Your task to perform on an android device: Open network settings Image 0: 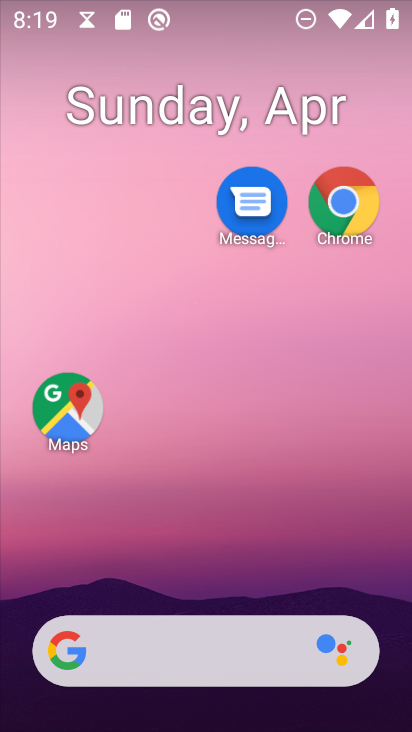
Step 0: drag from (164, 659) to (258, 137)
Your task to perform on an android device: Open network settings Image 1: 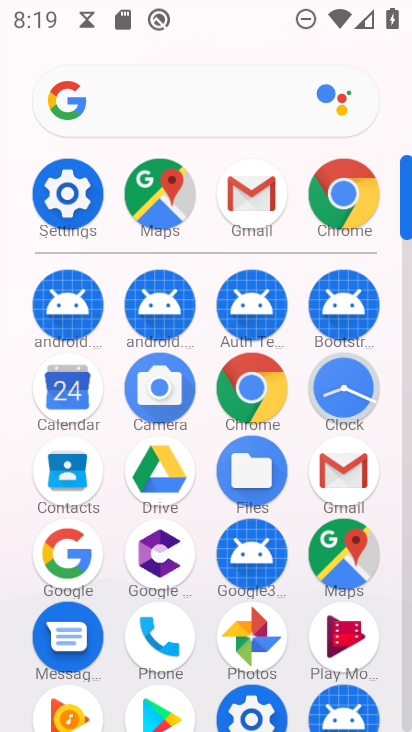
Step 1: click (67, 202)
Your task to perform on an android device: Open network settings Image 2: 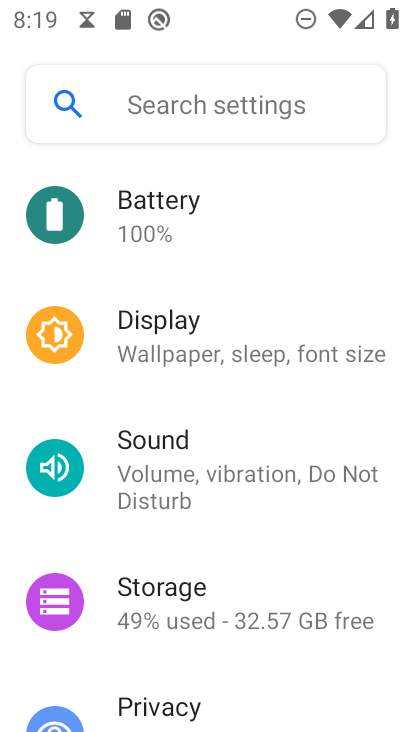
Step 2: drag from (277, 244) to (254, 475)
Your task to perform on an android device: Open network settings Image 3: 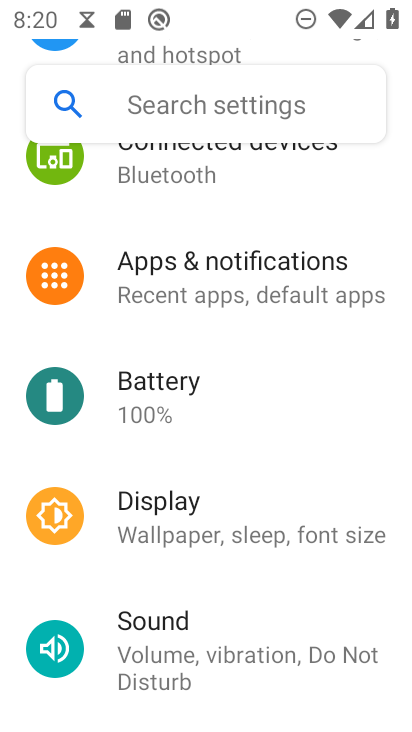
Step 3: drag from (318, 239) to (202, 648)
Your task to perform on an android device: Open network settings Image 4: 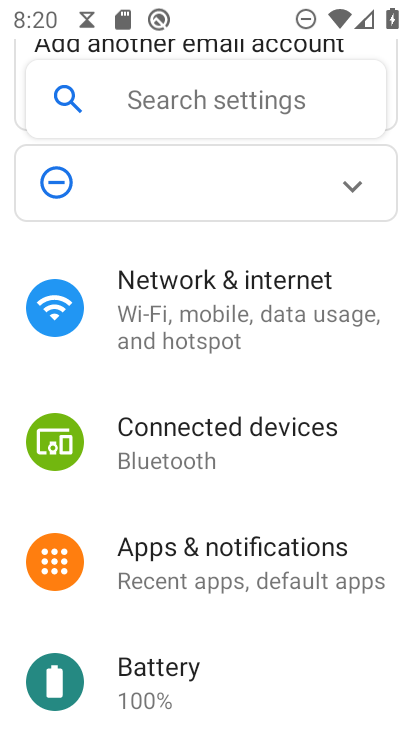
Step 4: click (225, 310)
Your task to perform on an android device: Open network settings Image 5: 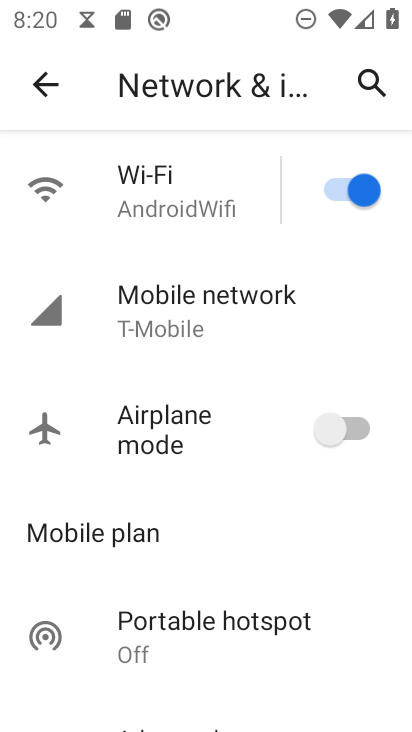
Step 5: task complete